Your task to perform on an android device: When is my next appointment? Image 0: 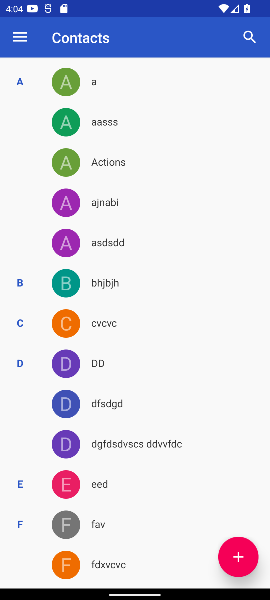
Step 0: press home button
Your task to perform on an android device: When is my next appointment? Image 1: 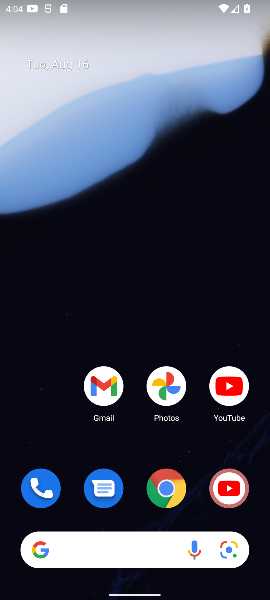
Step 1: task complete